Your task to perform on an android device: Open eBay Image 0: 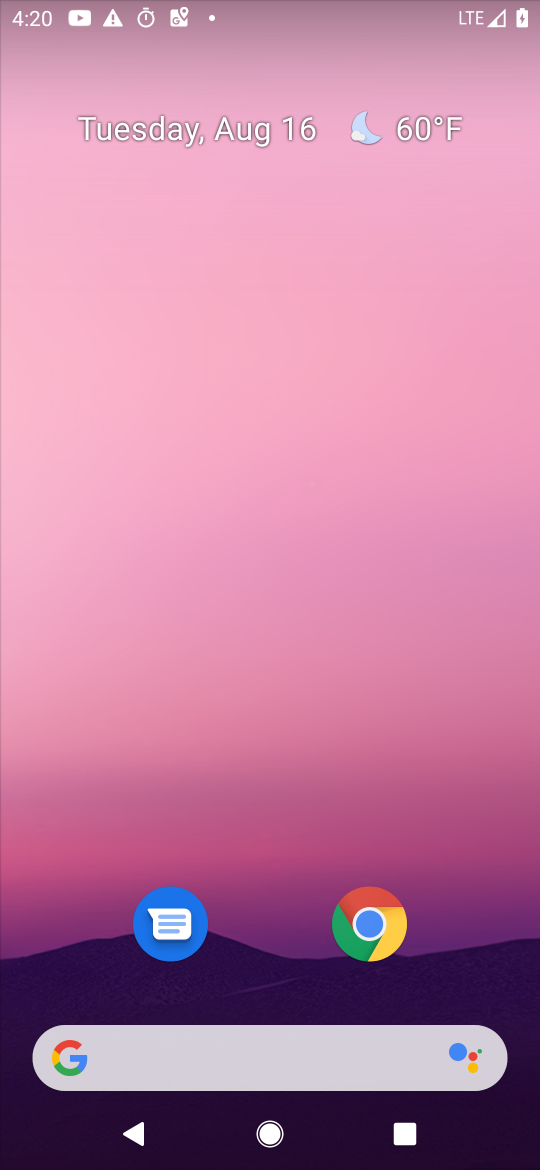
Step 0: click (369, 930)
Your task to perform on an android device: Open eBay Image 1: 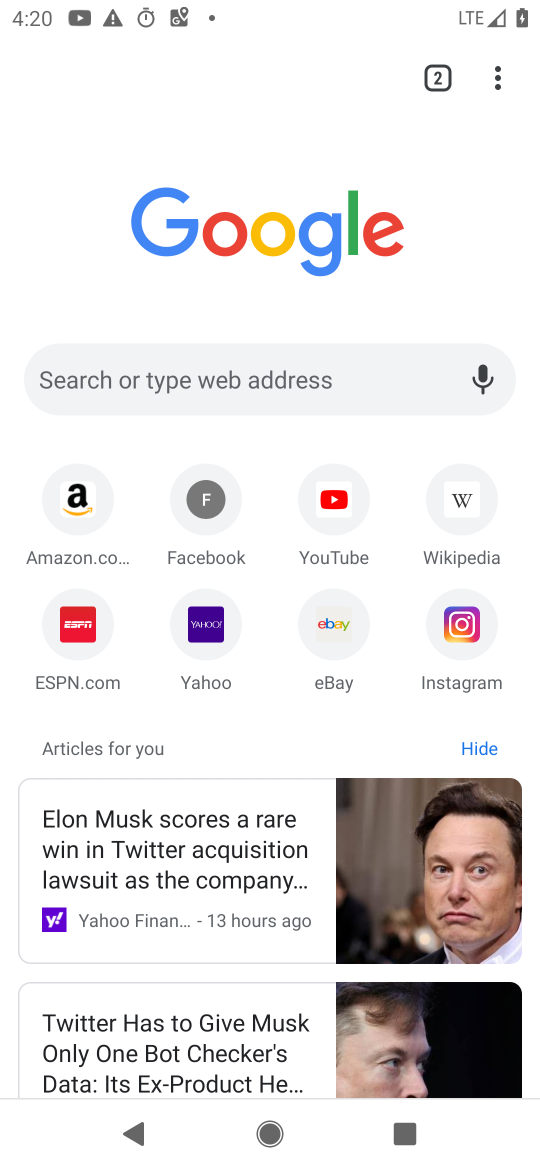
Step 1: click (337, 614)
Your task to perform on an android device: Open eBay Image 2: 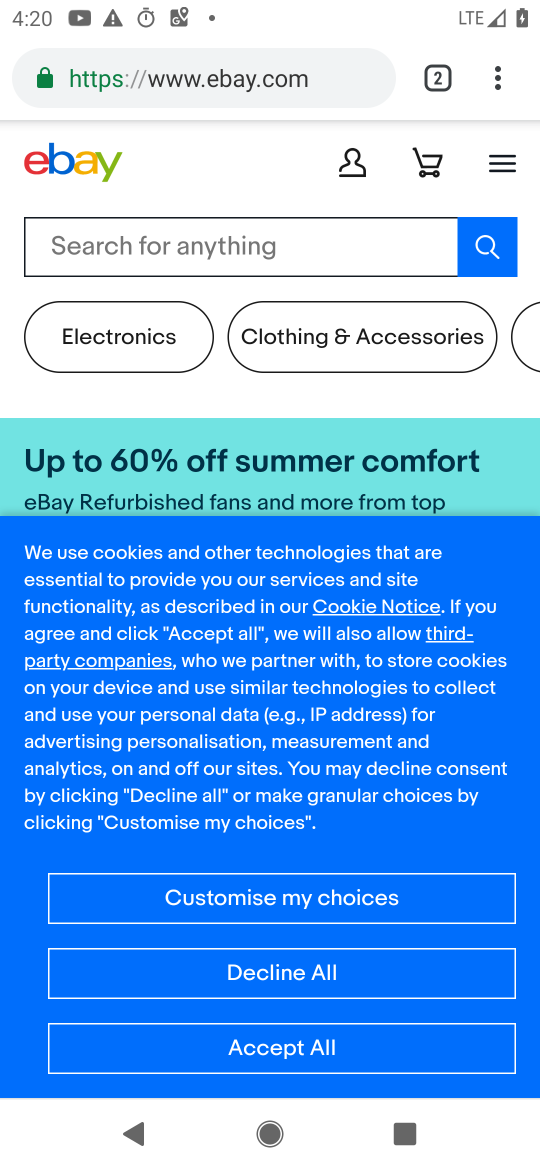
Step 2: task complete